Your task to perform on an android device: Clear the shopping cart on newegg.com. Add "razer huntsman" to the cart on newegg.com, then select checkout. Image 0: 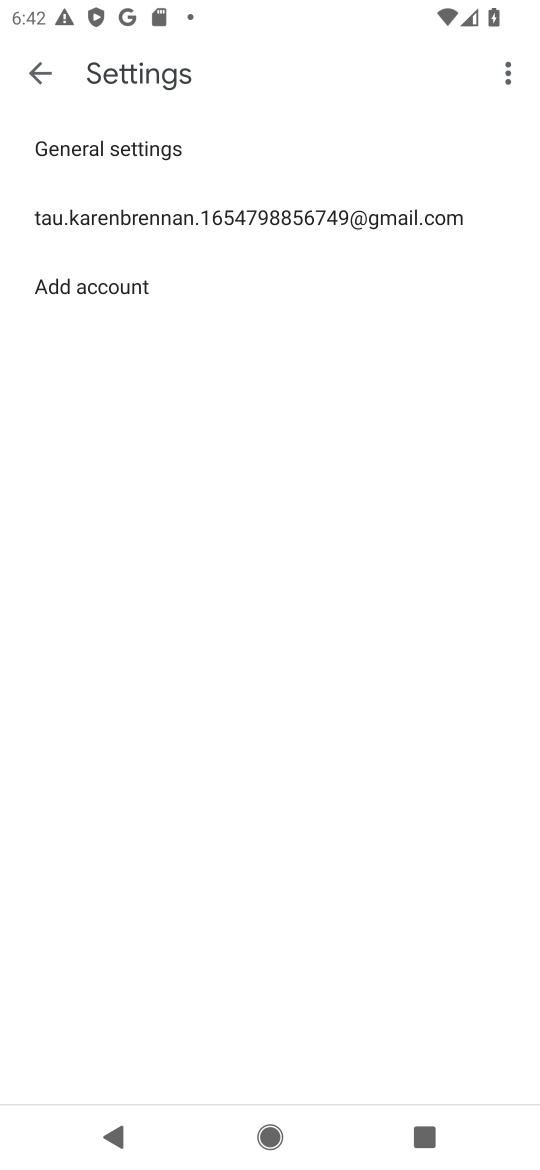
Step 0: press home button
Your task to perform on an android device: Clear the shopping cart on newegg.com. Add "razer huntsman" to the cart on newegg.com, then select checkout. Image 1: 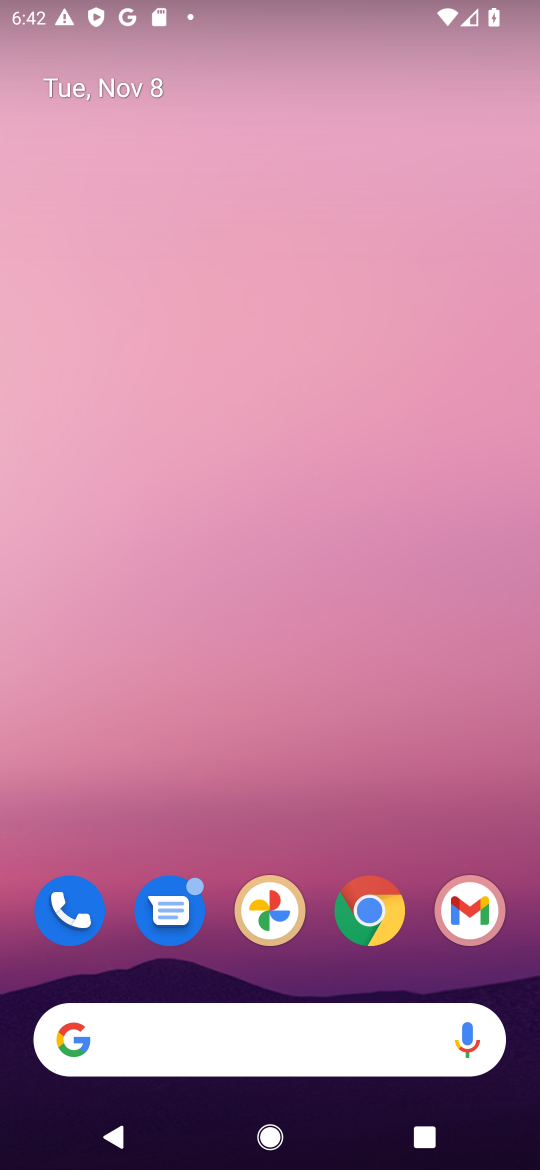
Step 1: click (371, 919)
Your task to perform on an android device: Clear the shopping cart on newegg.com. Add "razer huntsman" to the cart on newegg.com, then select checkout. Image 2: 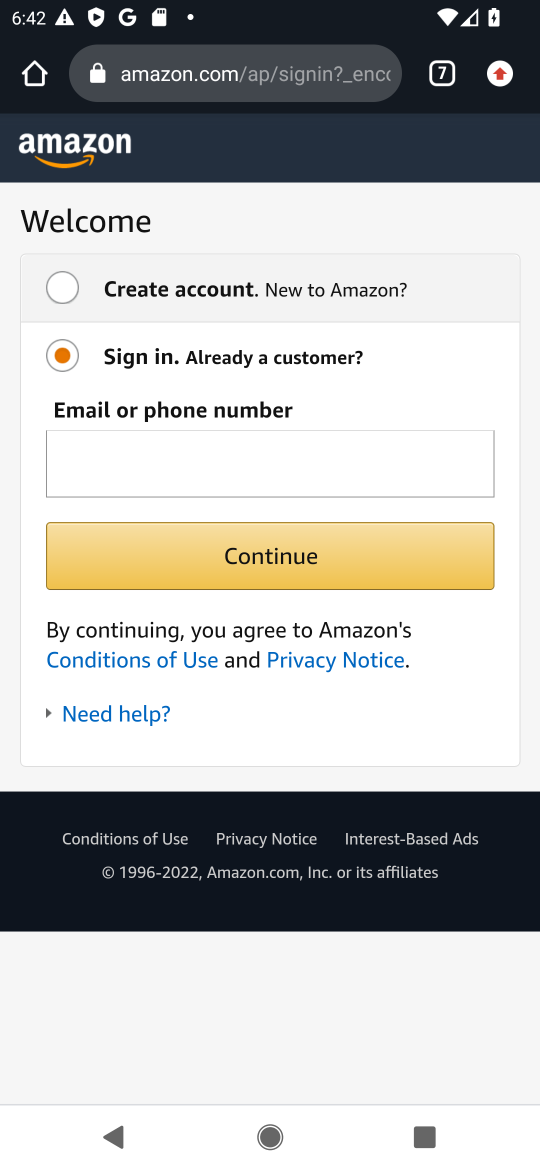
Step 2: click (449, 76)
Your task to perform on an android device: Clear the shopping cart on newegg.com. Add "razer huntsman" to the cart on newegg.com, then select checkout. Image 3: 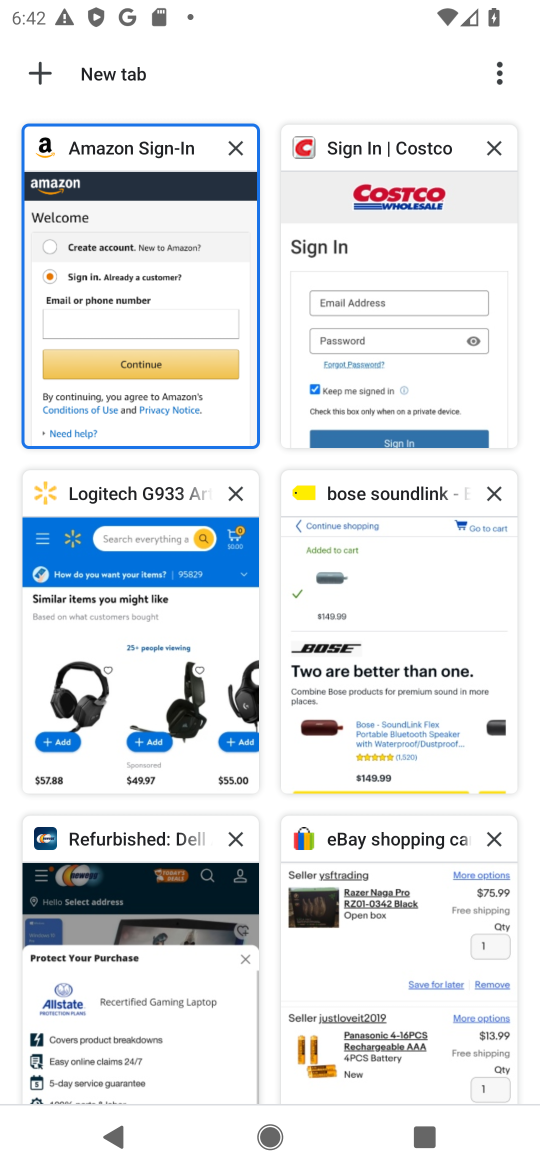
Step 3: click (173, 904)
Your task to perform on an android device: Clear the shopping cart on newegg.com. Add "razer huntsman" to the cart on newegg.com, then select checkout. Image 4: 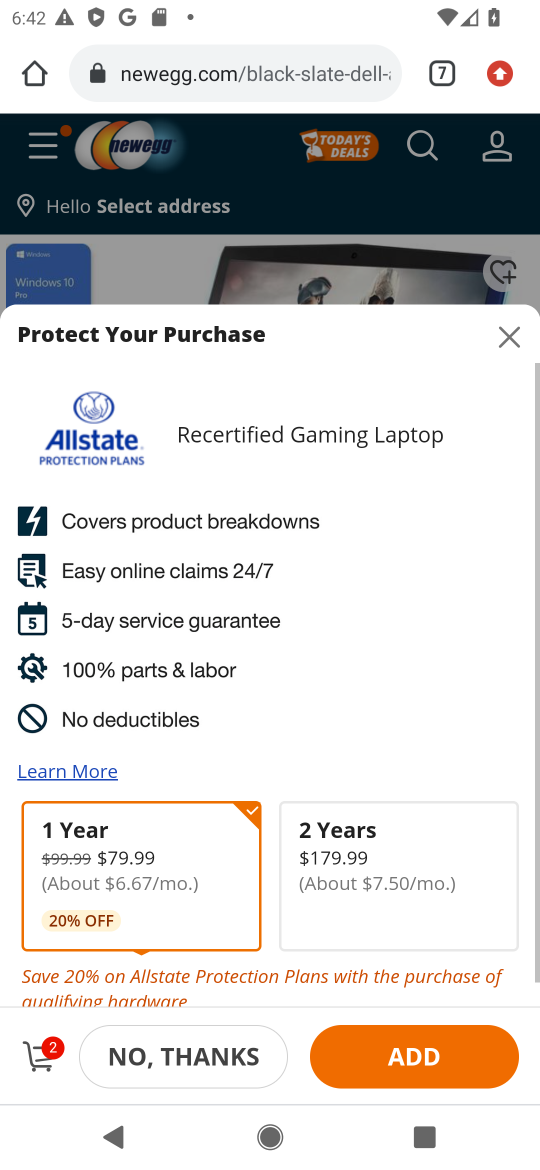
Step 4: click (504, 334)
Your task to perform on an android device: Clear the shopping cart on newegg.com. Add "razer huntsman" to the cart on newegg.com, then select checkout. Image 5: 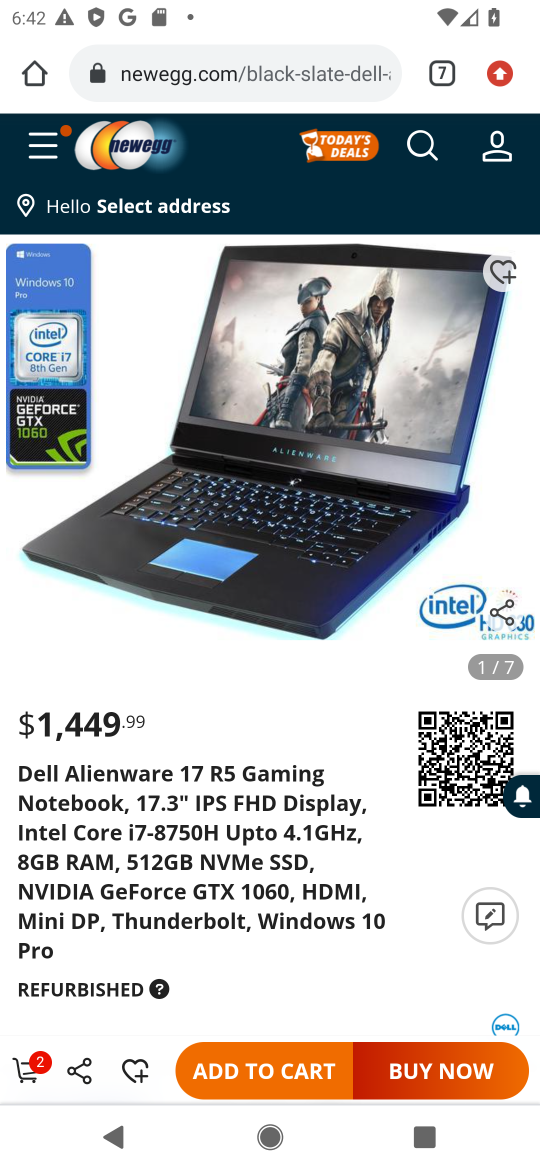
Step 5: click (424, 150)
Your task to perform on an android device: Clear the shopping cart on newegg.com. Add "razer huntsman" to the cart on newegg.com, then select checkout. Image 6: 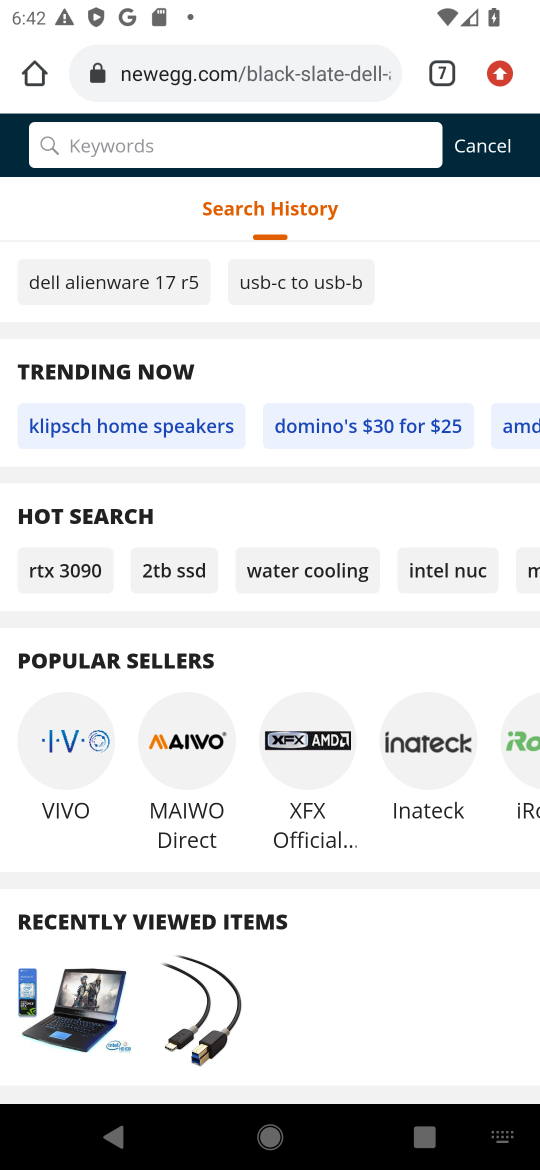
Step 6: type "razer huntsman"
Your task to perform on an android device: Clear the shopping cart on newegg.com. Add "razer huntsman" to the cart on newegg.com, then select checkout. Image 7: 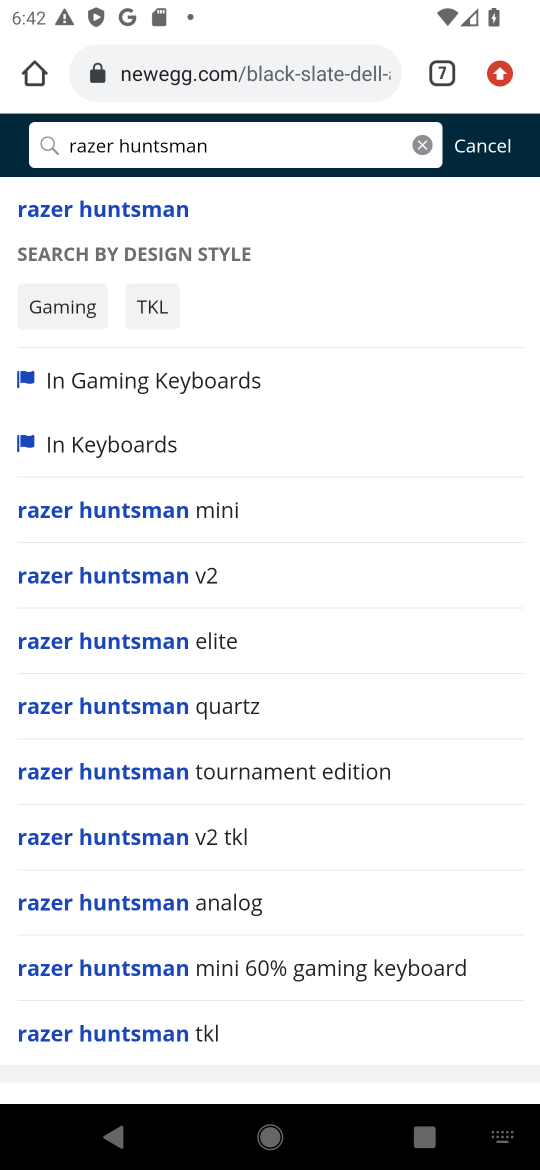
Step 7: click (155, 215)
Your task to perform on an android device: Clear the shopping cart on newegg.com. Add "razer huntsman" to the cart on newegg.com, then select checkout. Image 8: 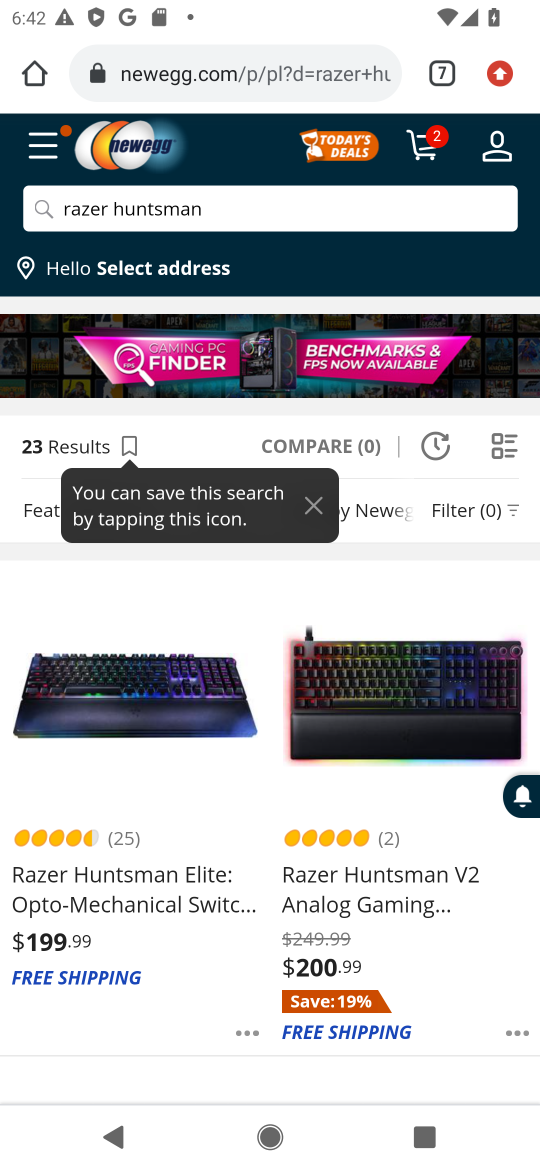
Step 8: click (147, 899)
Your task to perform on an android device: Clear the shopping cart on newegg.com. Add "razer huntsman" to the cart on newegg.com, then select checkout. Image 9: 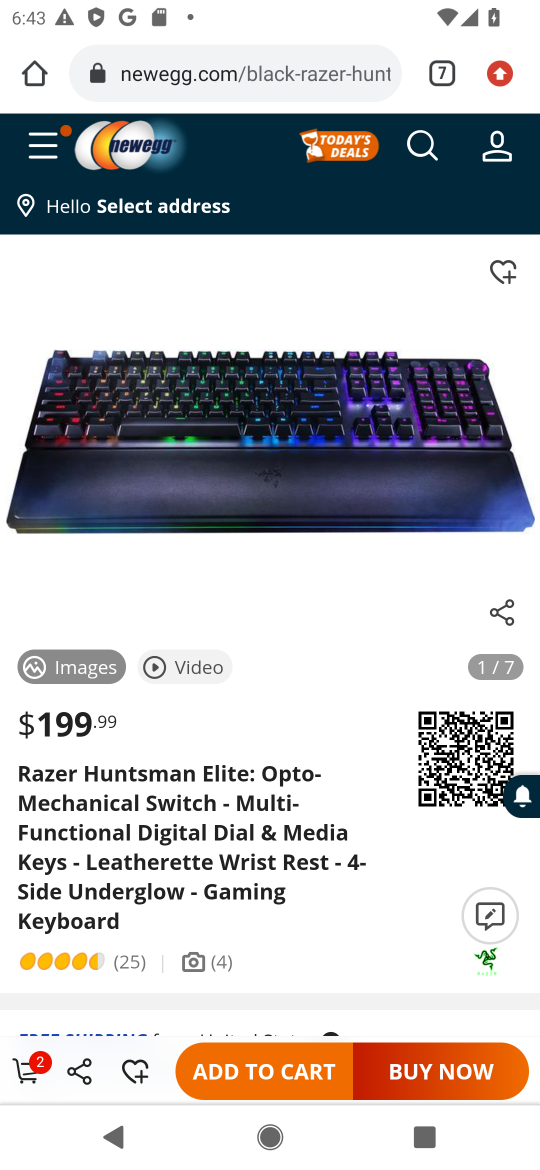
Step 9: click (246, 1062)
Your task to perform on an android device: Clear the shopping cart on newegg.com. Add "razer huntsman" to the cart on newegg.com, then select checkout. Image 10: 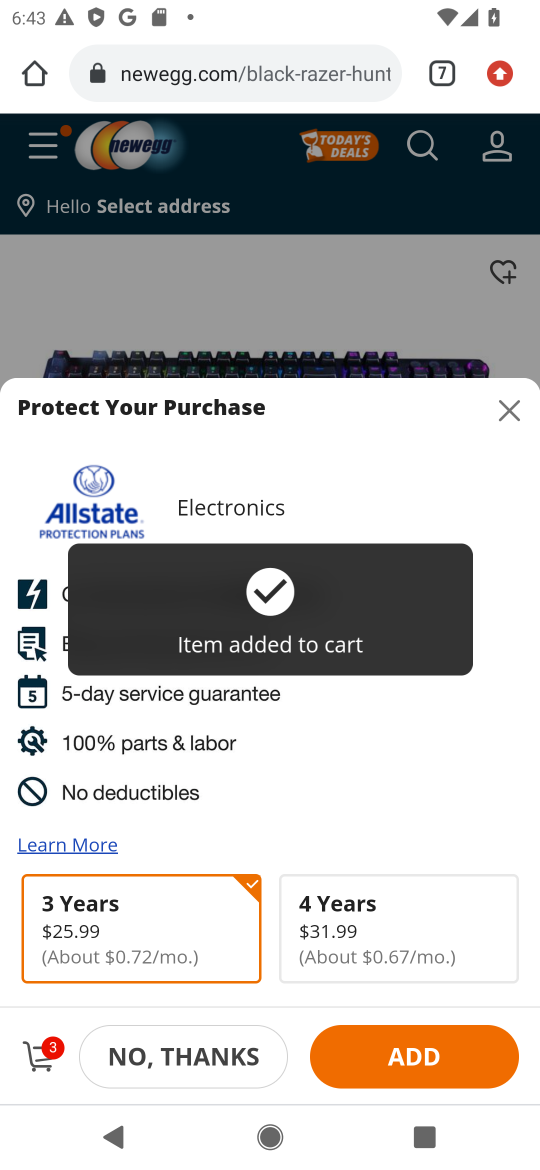
Step 10: task complete